Your task to perform on an android device: find photos in the google photos app Image 0: 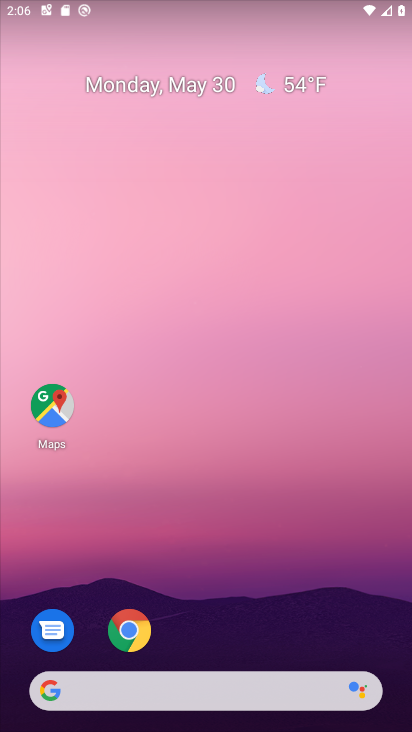
Step 0: press home button
Your task to perform on an android device: find photos in the google photos app Image 1: 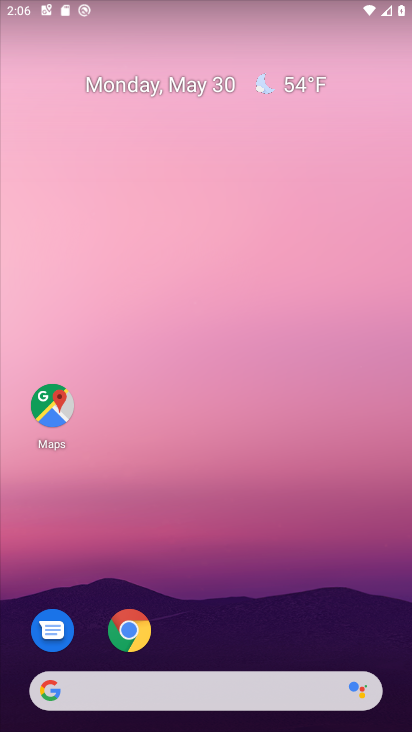
Step 1: drag from (190, 684) to (308, 238)
Your task to perform on an android device: find photos in the google photos app Image 2: 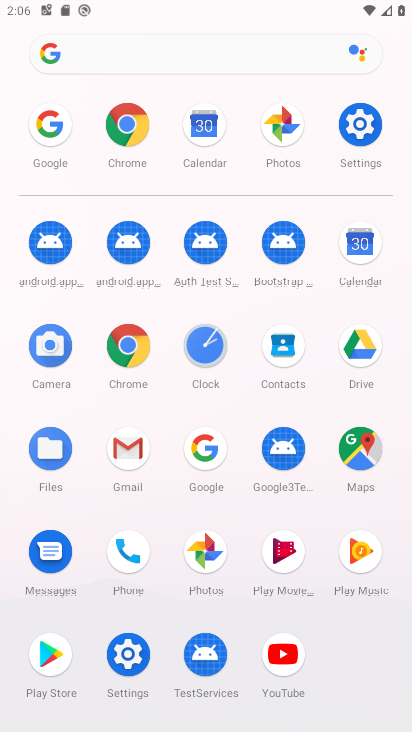
Step 2: click (211, 555)
Your task to perform on an android device: find photos in the google photos app Image 3: 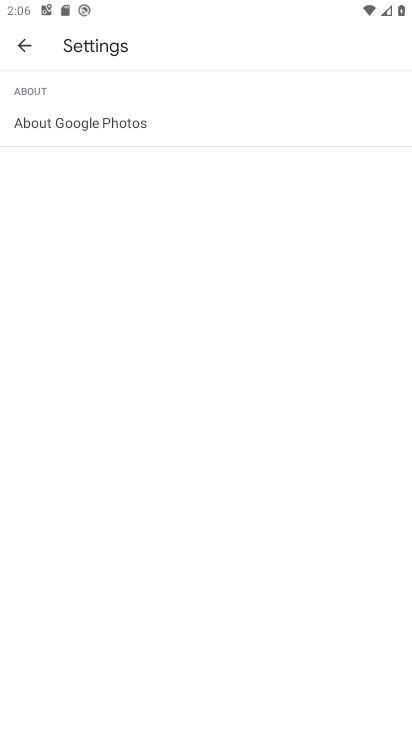
Step 3: click (26, 39)
Your task to perform on an android device: find photos in the google photos app Image 4: 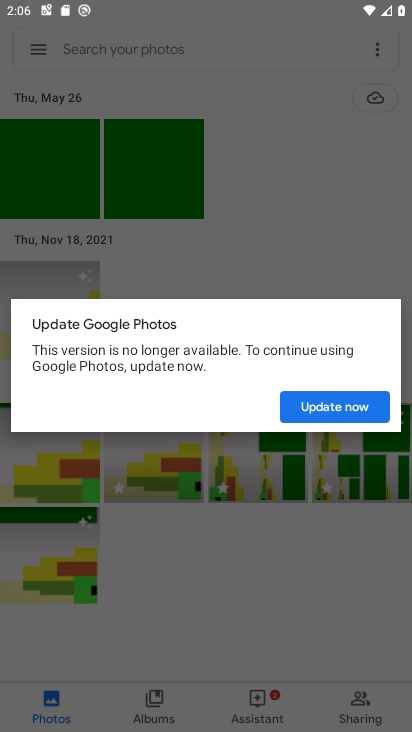
Step 4: click (318, 416)
Your task to perform on an android device: find photos in the google photos app Image 5: 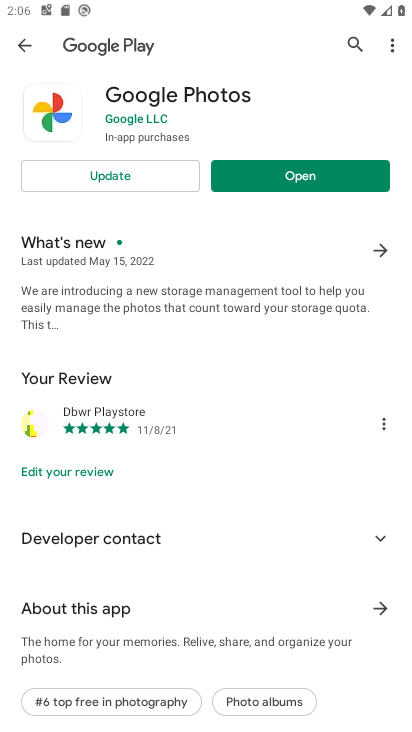
Step 5: click (270, 178)
Your task to perform on an android device: find photos in the google photos app Image 6: 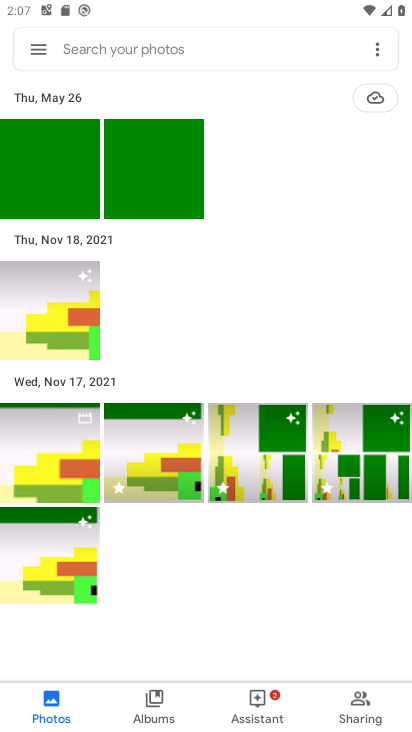
Step 6: task complete